Your task to perform on an android device: Open calendar and show me the fourth week of next month Image 0: 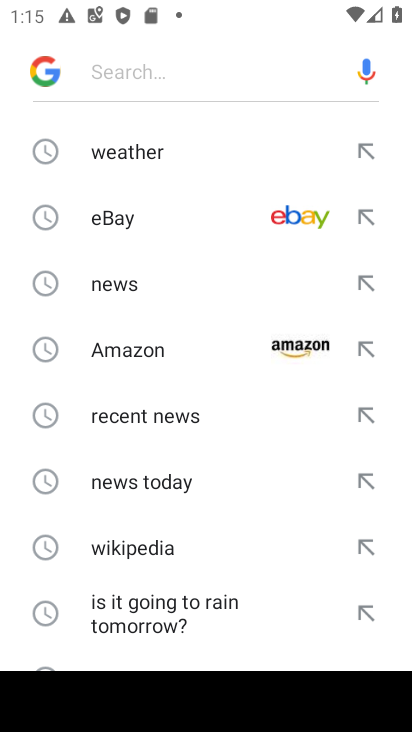
Step 0: press home button
Your task to perform on an android device: Open calendar and show me the fourth week of next month Image 1: 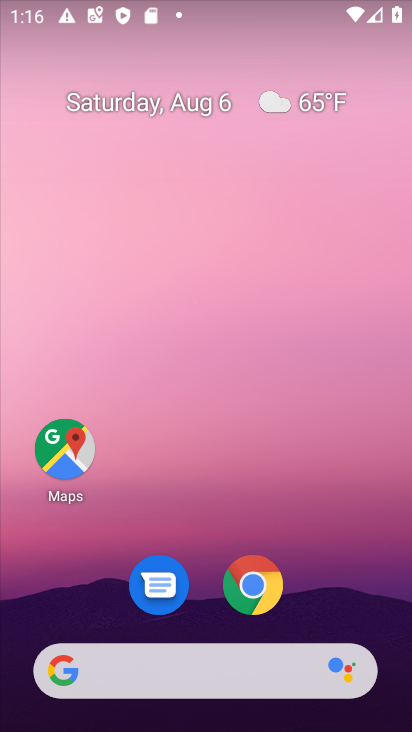
Step 1: drag from (215, 495) to (269, 5)
Your task to perform on an android device: Open calendar and show me the fourth week of next month Image 2: 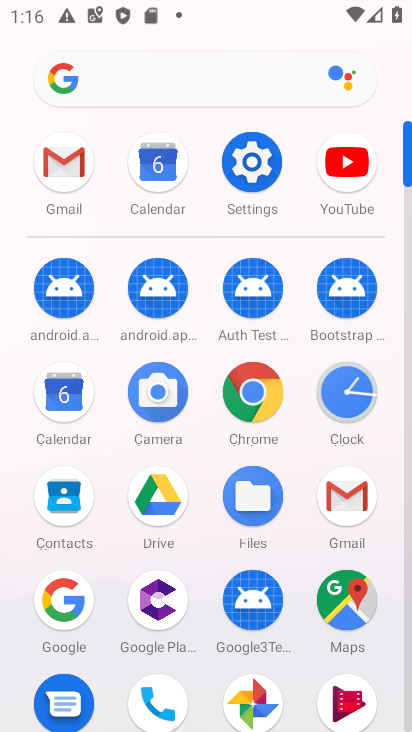
Step 2: click (78, 389)
Your task to perform on an android device: Open calendar and show me the fourth week of next month Image 3: 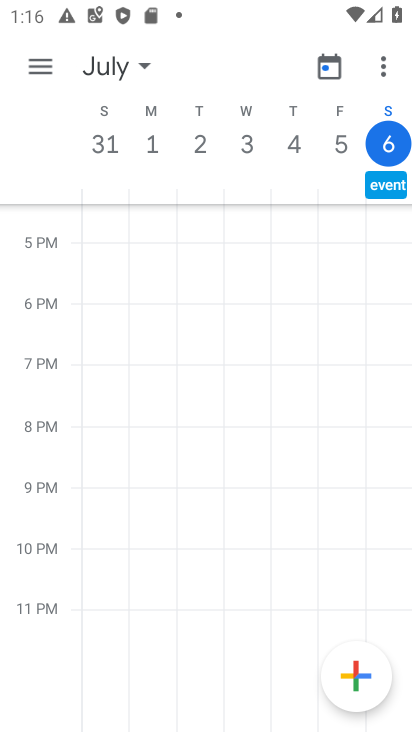
Step 3: click (43, 66)
Your task to perform on an android device: Open calendar and show me the fourth week of next month Image 4: 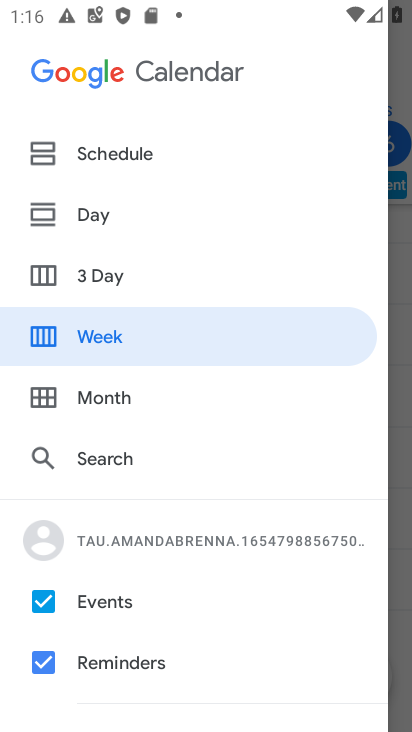
Step 4: click (78, 400)
Your task to perform on an android device: Open calendar and show me the fourth week of next month Image 5: 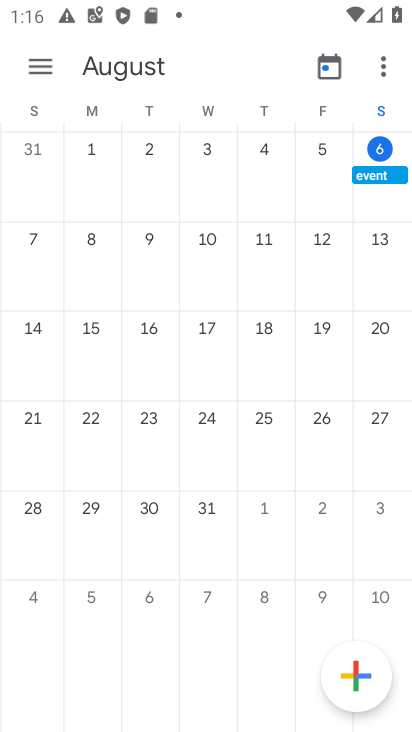
Step 5: drag from (379, 362) to (1, 362)
Your task to perform on an android device: Open calendar and show me the fourth week of next month Image 6: 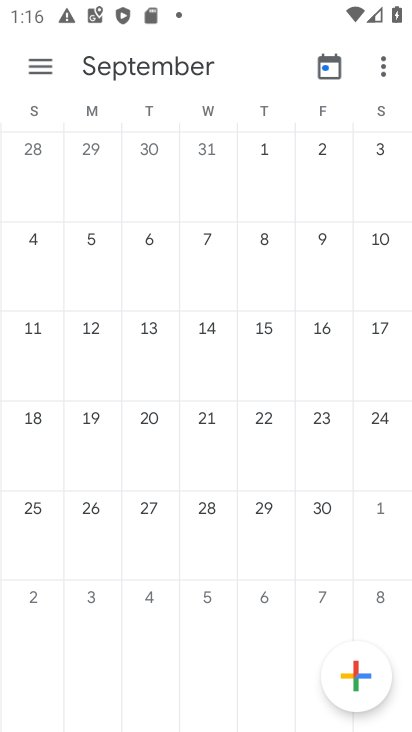
Step 6: click (34, 500)
Your task to perform on an android device: Open calendar and show me the fourth week of next month Image 7: 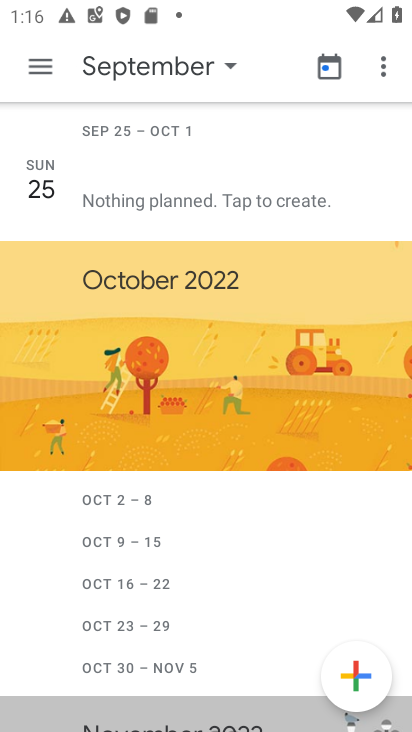
Step 7: click (40, 68)
Your task to perform on an android device: Open calendar and show me the fourth week of next month Image 8: 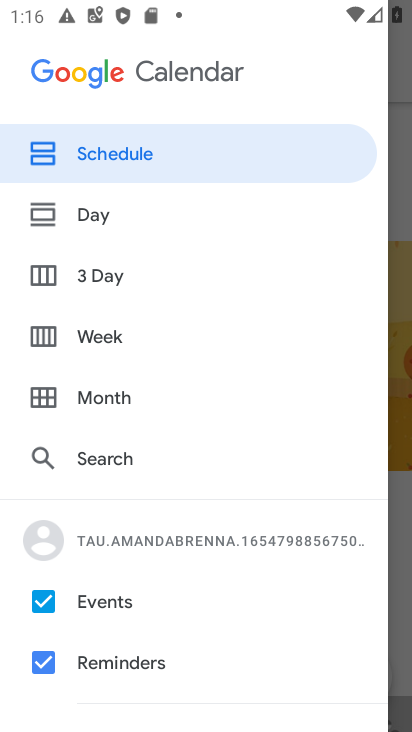
Step 8: click (72, 332)
Your task to perform on an android device: Open calendar and show me the fourth week of next month Image 9: 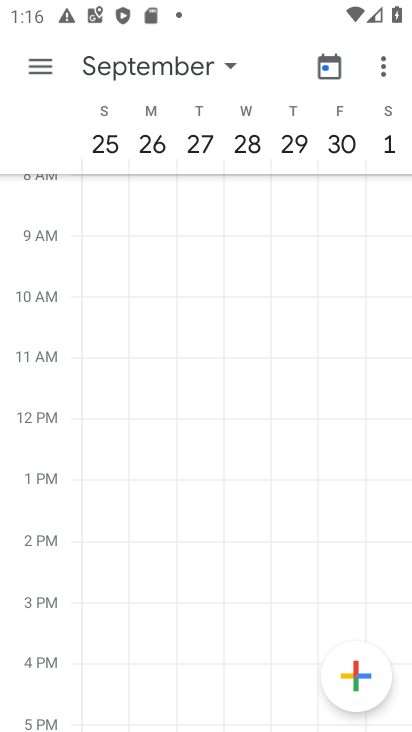
Step 9: task complete